Your task to perform on an android device: Open Maps and search for coffee Image 0: 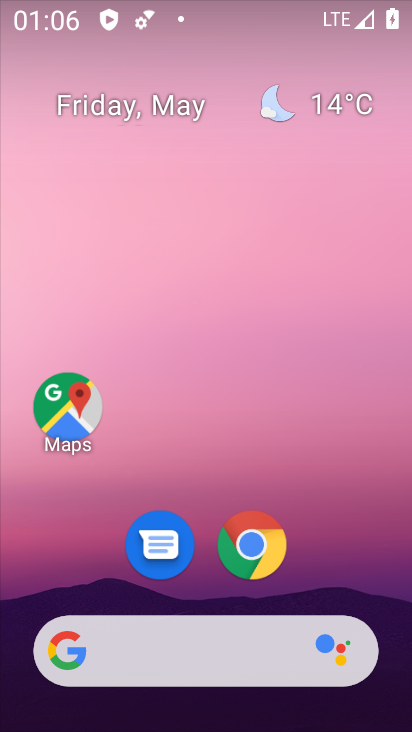
Step 0: drag from (272, 592) to (300, 32)
Your task to perform on an android device: Open Maps and search for coffee Image 1: 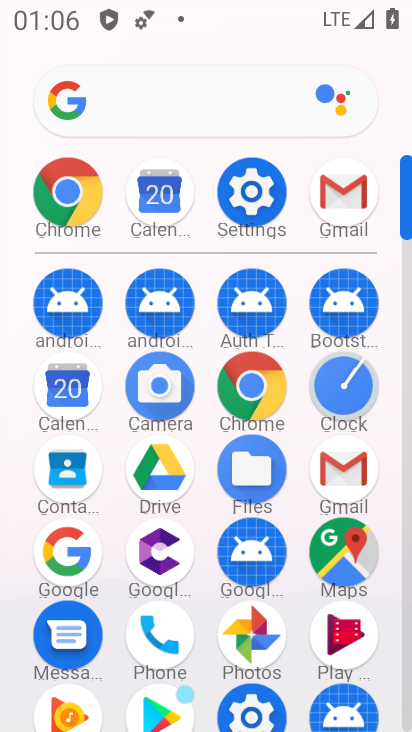
Step 1: click (334, 544)
Your task to perform on an android device: Open Maps and search for coffee Image 2: 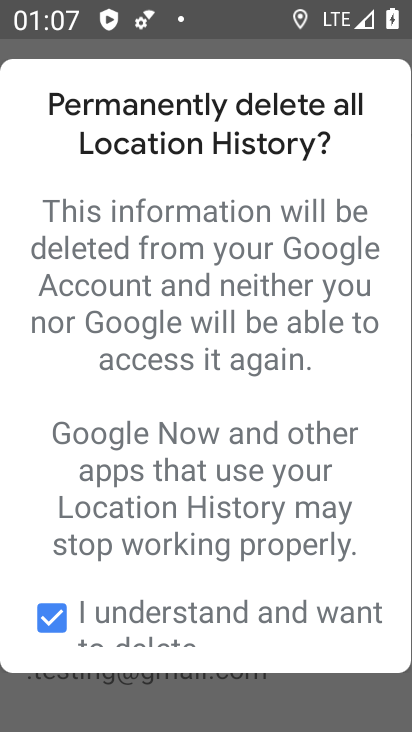
Step 2: press home button
Your task to perform on an android device: Open Maps and search for coffee Image 3: 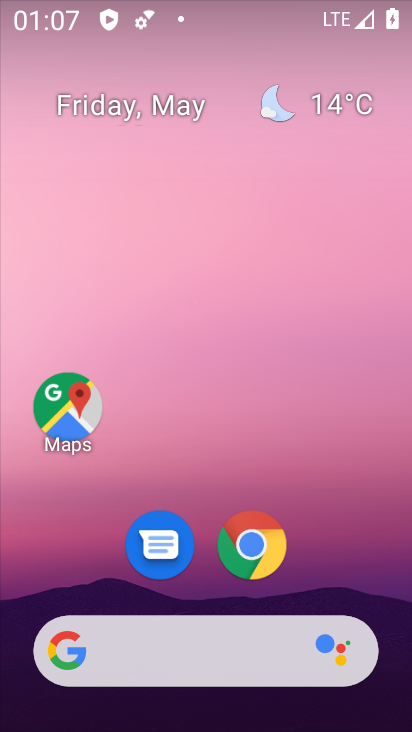
Step 3: click (81, 420)
Your task to perform on an android device: Open Maps and search for coffee Image 4: 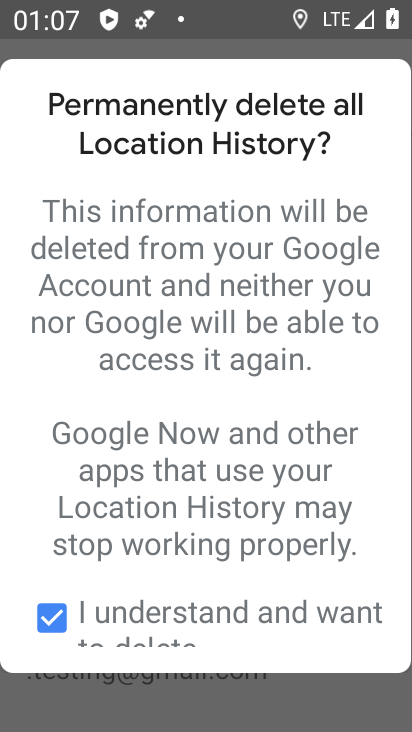
Step 4: press back button
Your task to perform on an android device: Open Maps and search for coffee Image 5: 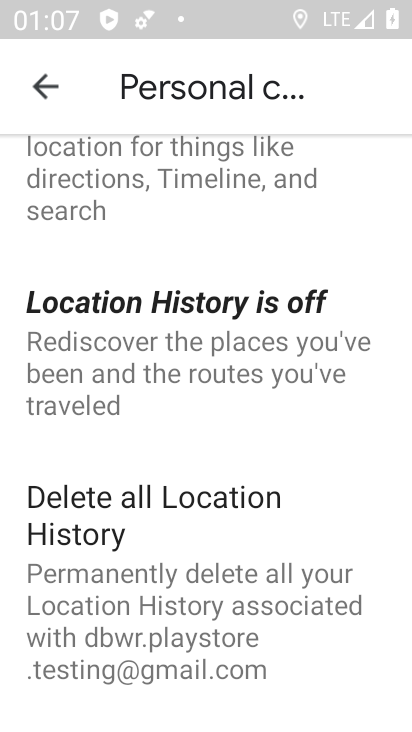
Step 5: press back button
Your task to perform on an android device: Open Maps and search for coffee Image 6: 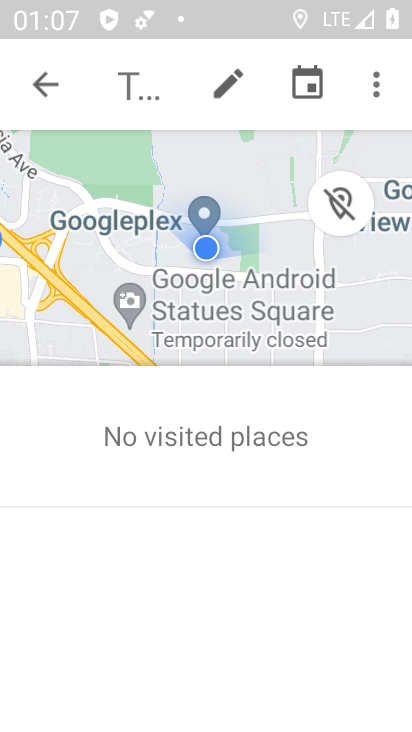
Step 6: press back button
Your task to perform on an android device: Open Maps and search for coffee Image 7: 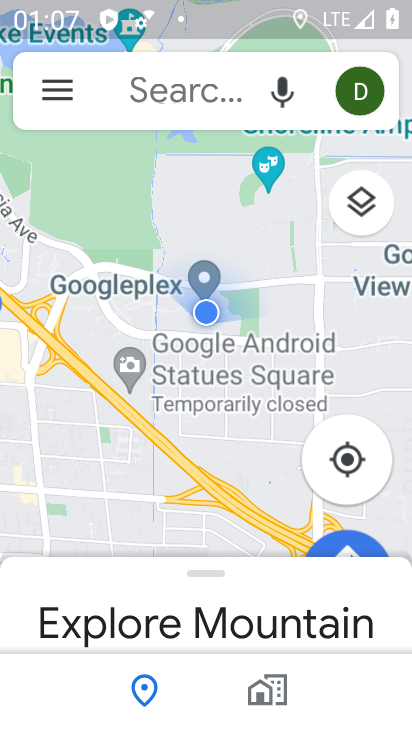
Step 7: press back button
Your task to perform on an android device: Open Maps and search for coffee Image 8: 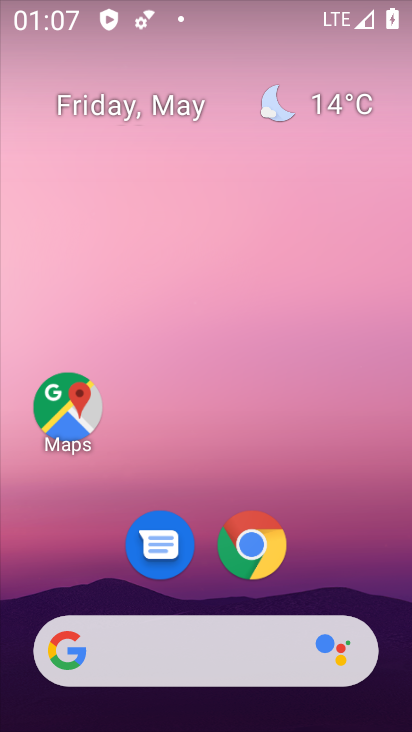
Step 8: click (34, 407)
Your task to perform on an android device: Open Maps and search for coffee Image 9: 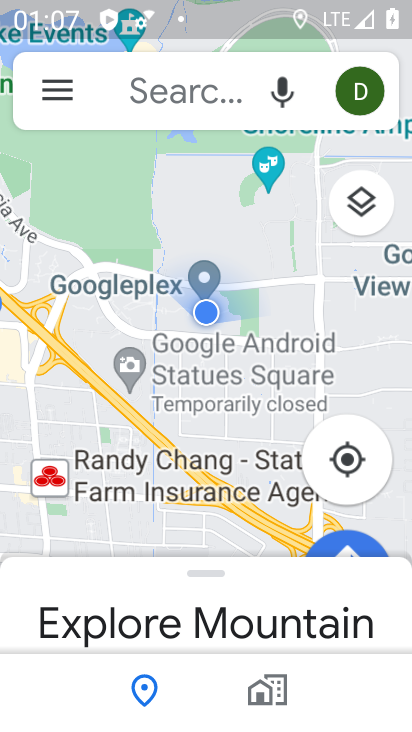
Step 9: click (186, 93)
Your task to perform on an android device: Open Maps and search for coffee Image 10: 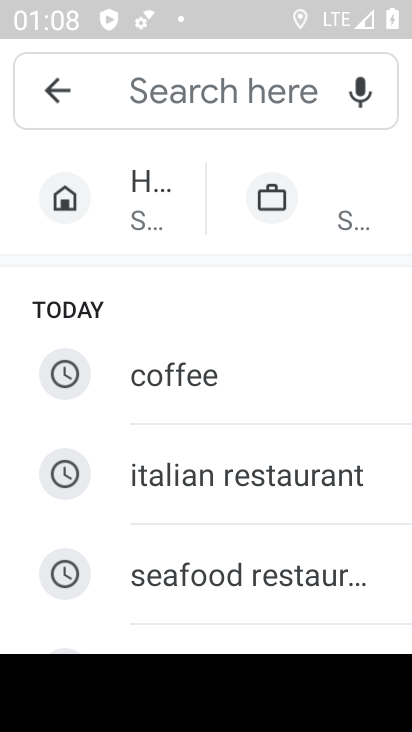
Step 10: click (165, 391)
Your task to perform on an android device: Open Maps and search for coffee Image 11: 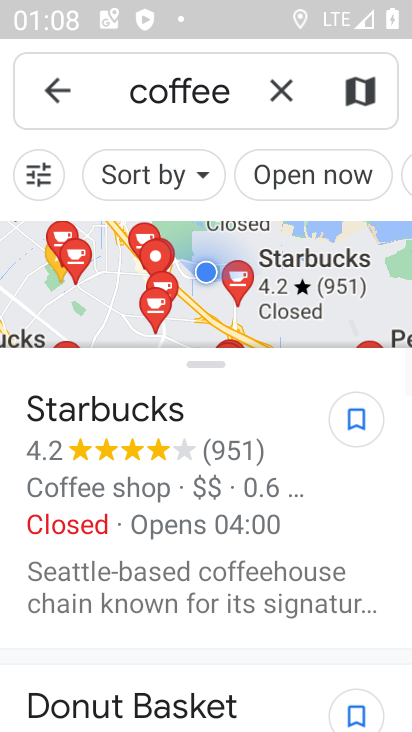
Step 11: task complete